Your task to perform on an android device: turn off translation in the chrome app Image 0: 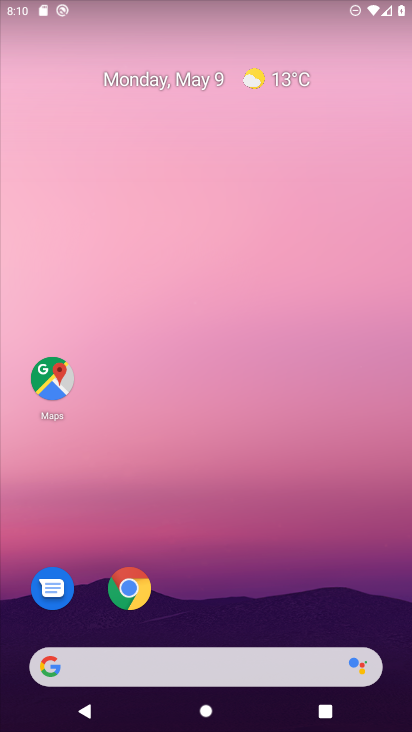
Step 0: click (128, 597)
Your task to perform on an android device: turn off translation in the chrome app Image 1: 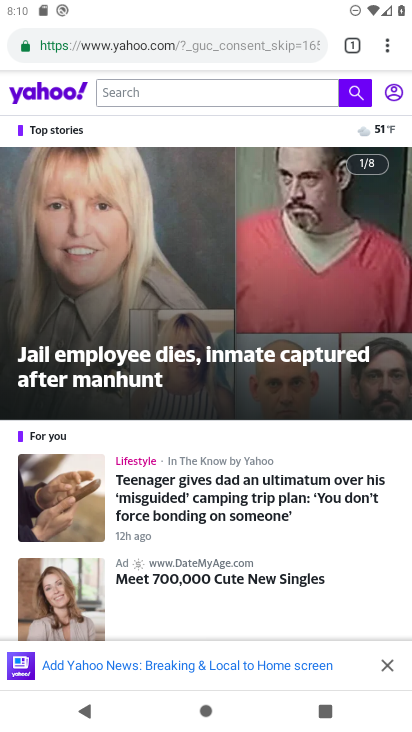
Step 1: click (379, 45)
Your task to perform on an android device: turn off translation in the chrome app Image 2: 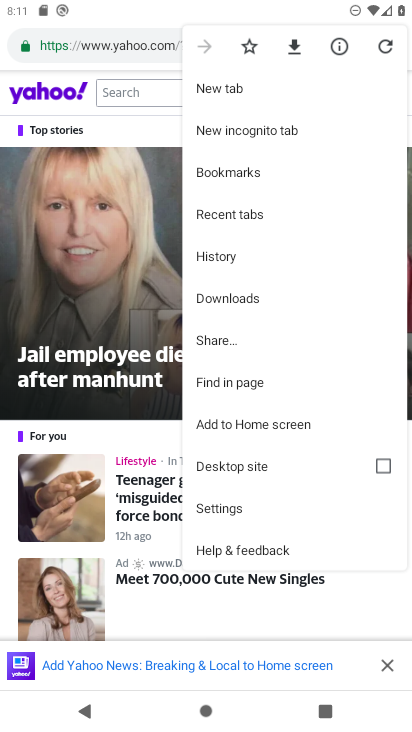
Step 2: click (209, 497)
Your task to perform on an android device: turn off translation in the chrome app Image 3: 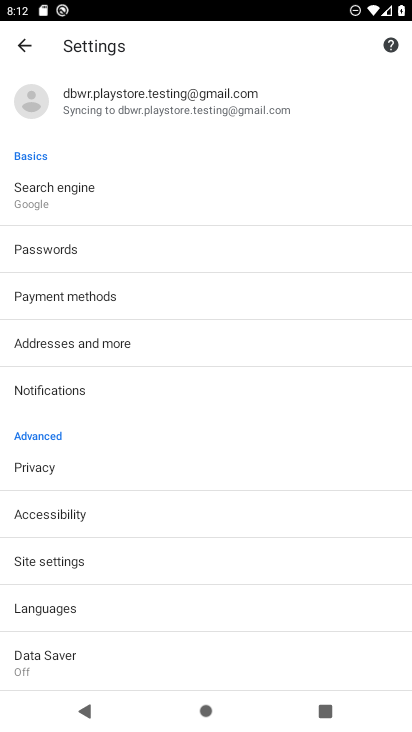
Step 3: click (178, 568)
Your task to perform on an android device: turn off translation in the chrome app Image 4: 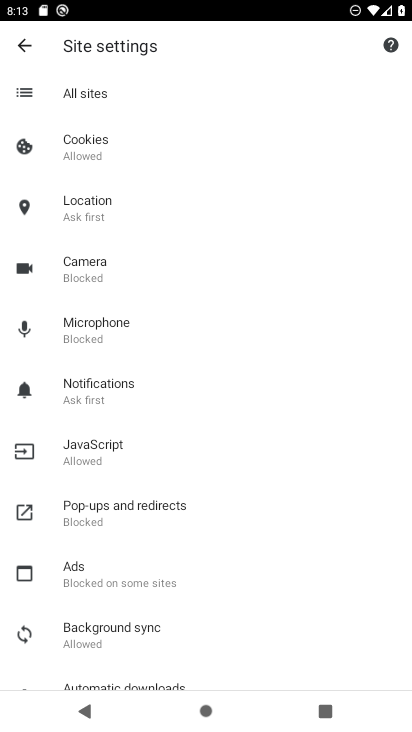
Step 4: click (26, 52)
Your task to perform on an android device: turn off translation in the chrome app Image 5: 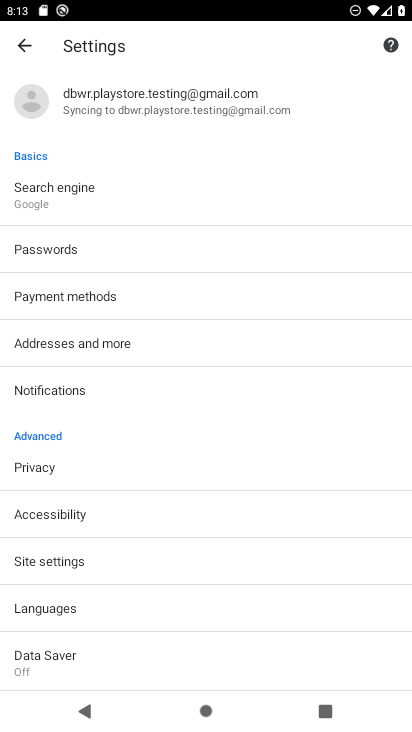
Step 5: click (26, 52)
Your task to perform on an android device: turn off translation in the chrome app Image 6: 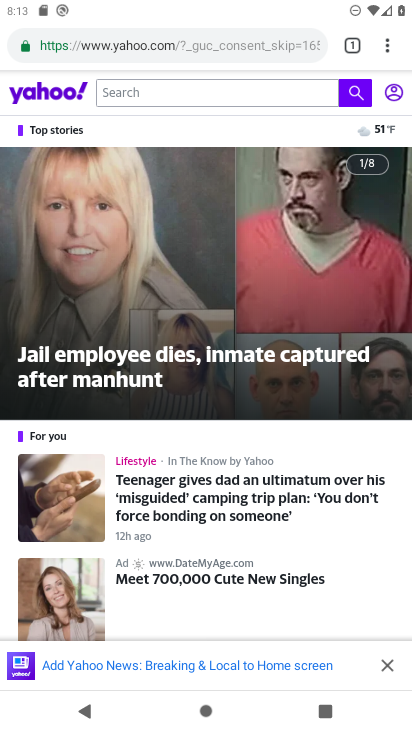
Step 6: click (382, 35)
Your task to perform on an android device: turn off translation in the chrome app Image 7: 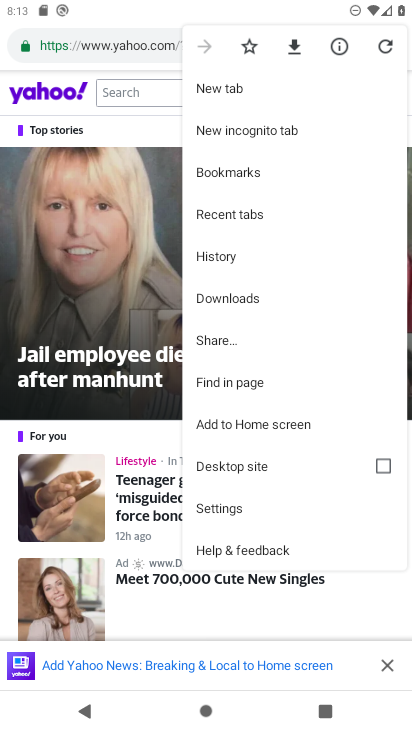
Step 7: click (221, 512)
Your task to perform on an android device: turn off translation in the chrome app Image 8: 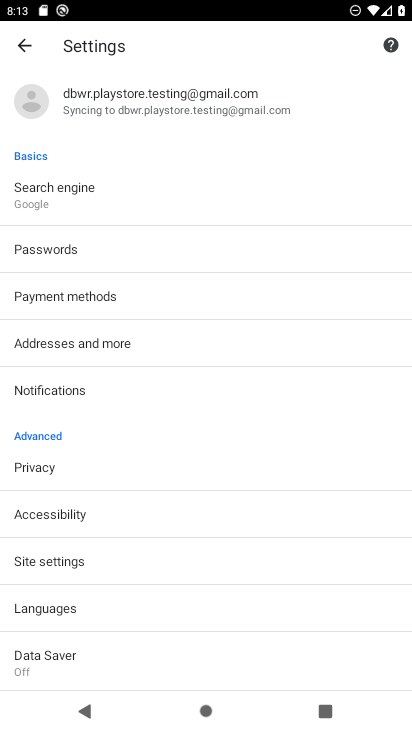
Step 8: click (209, 603)
Your task to perform on an android device: turn off translation in the chrome app Image 9: 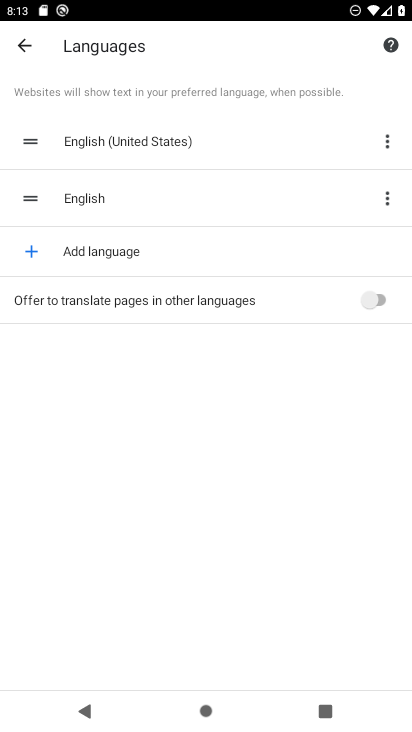
Step 9: task complete